Your task to perform on an android device: Open Yahoo.com Image 0: 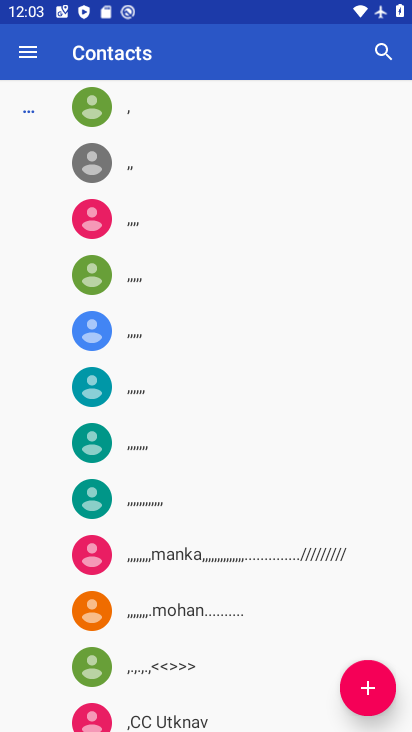
Step 0: press back button
Your task to perform on an android device: Open Yahoo.com Image 1: 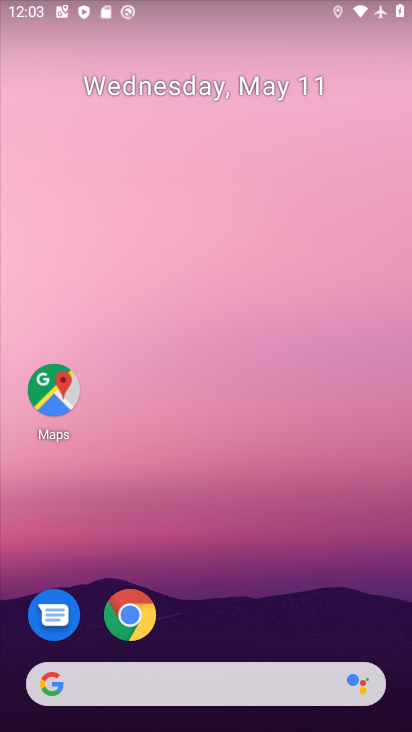
Step 1: click (128, 607)
Your task to perform on an android device: Open Yahoo.com Image 2: 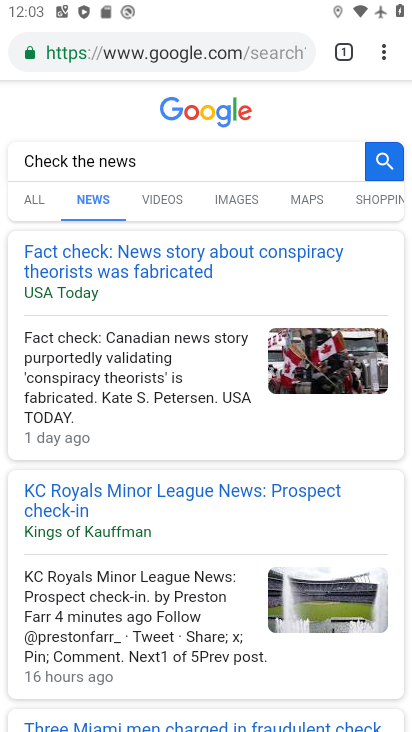
Step 2: click (204, 39)
Your task to perform on an android device: Open Yahoo.com Image 3: 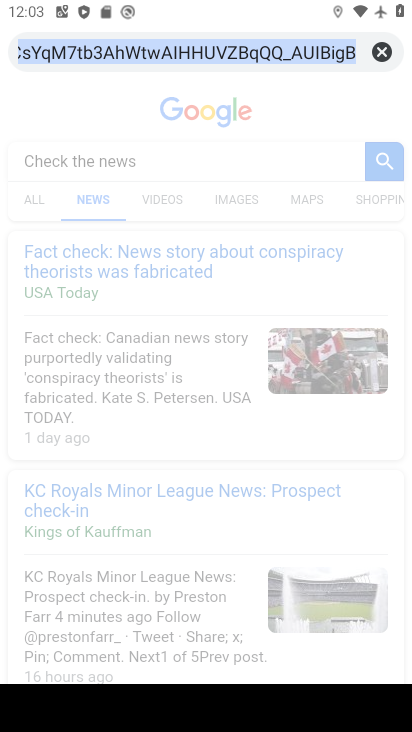
Step 3: click (393, 51)
Your task to perform on an android device: Open Yahoo.com Image 4: 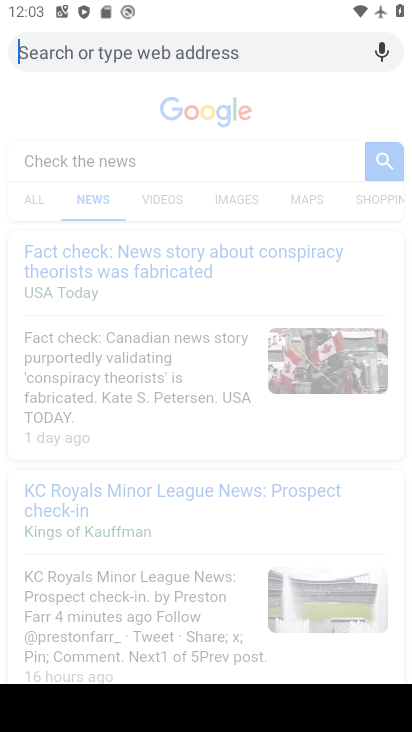
Step 4: type "Yahoo.com"
Your task to perform on an android device: Open Yahoo.com Image 5: 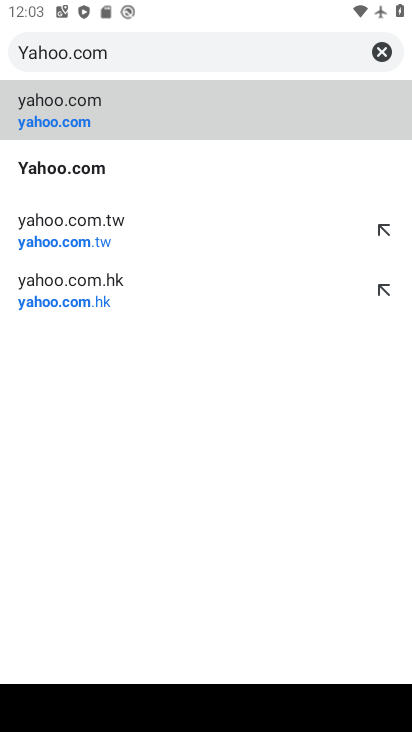
Step 5: click (161, 107)
Your task to perform on an android device: Open Yahoo.com Image 6: 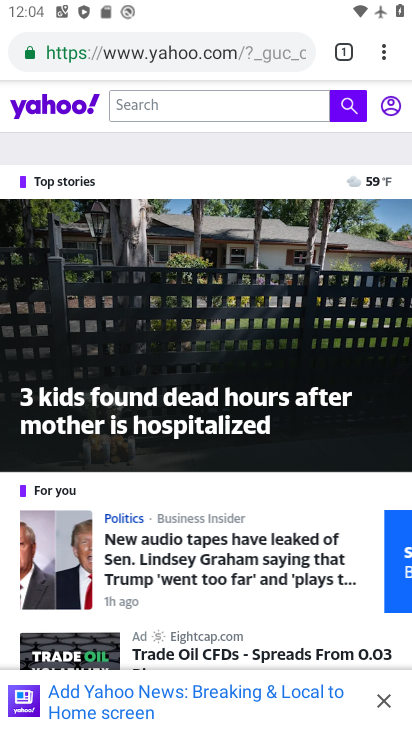
Step 6: task complete